Your task to perform on an android device: Open Wikipedia Image 0: 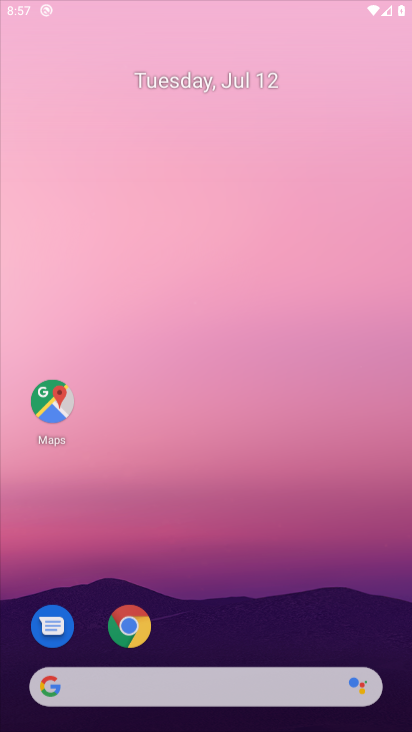
Step 0: press home button
Your task to perform on an android device: Open Wikipedia Image 1: 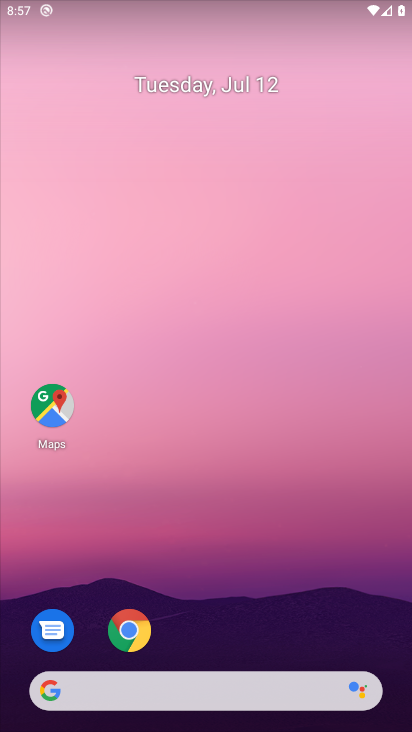
Step 1: drag from (226, 649) to (117, 116)
Your task to perform on an android device: Open Wikipedia Image 2: 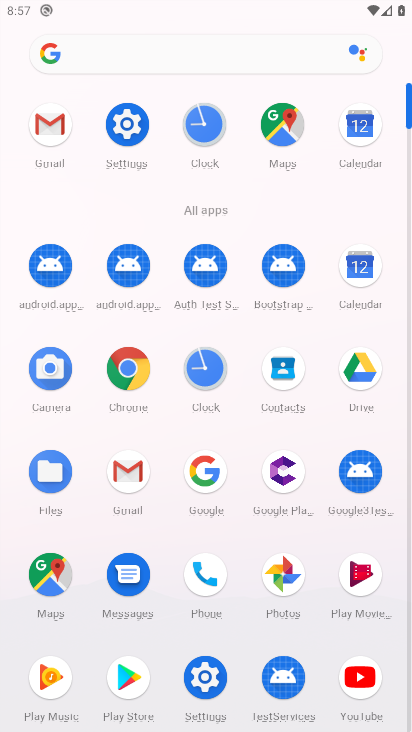
Step 2: click (199, 473)
Your task to perform on an android device: Open Wikipedia Image 3: 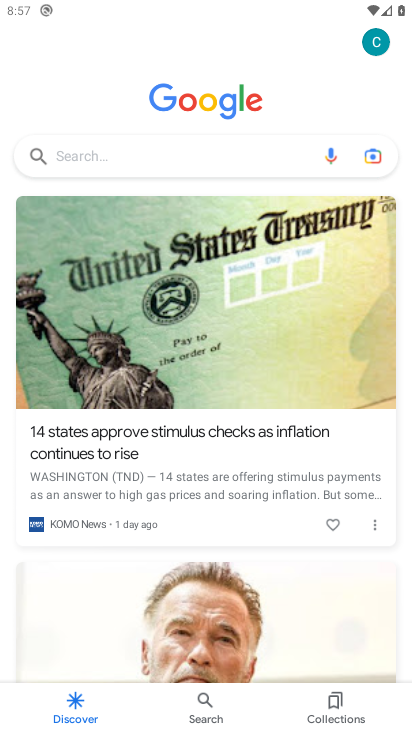
Step 3: click (136, 156)
Your task to perform on an android device: Open Wikipedia Image 4: 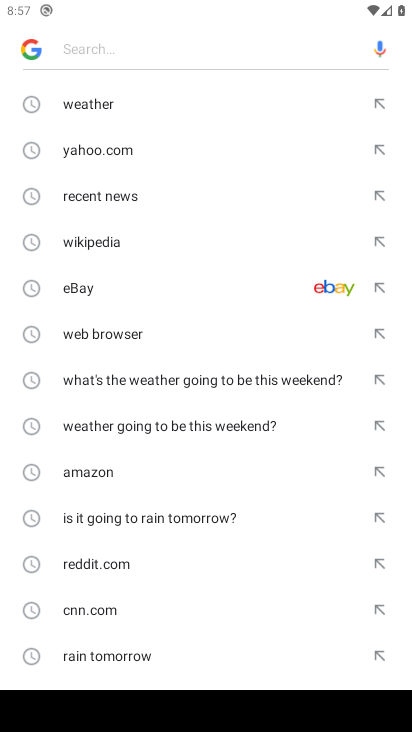
Step 4: click (86, 247)
Your task to perform on an android device: Open Wikipedia Image 5: 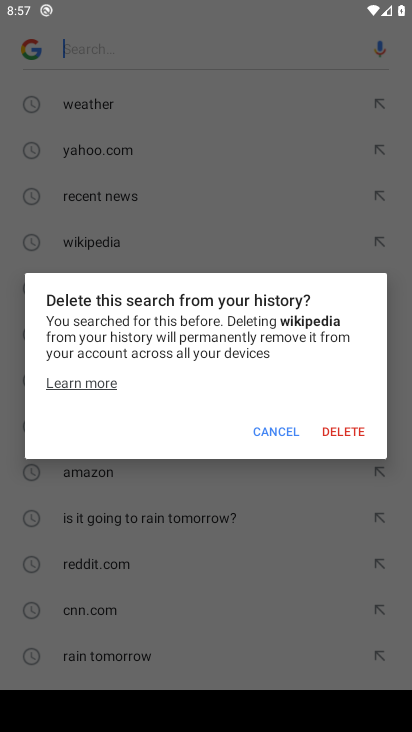
Step 5: click (212, 206)
Your task to perform on an android device: Open Wikipedia Image 6: 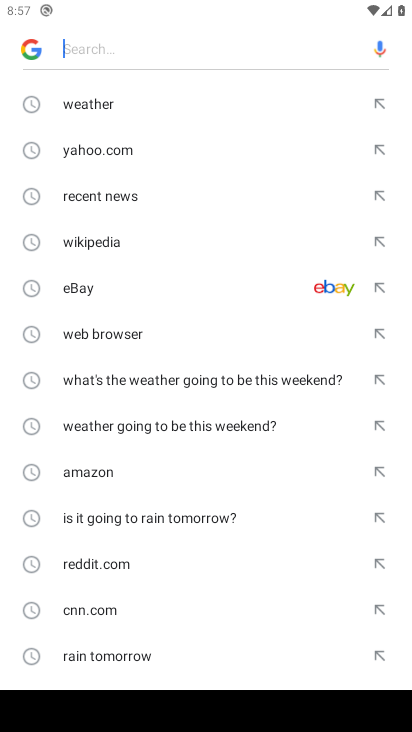
Step 6: click (79, 243)
Your task to perform on an android device: Open Wikipedia Image 7: 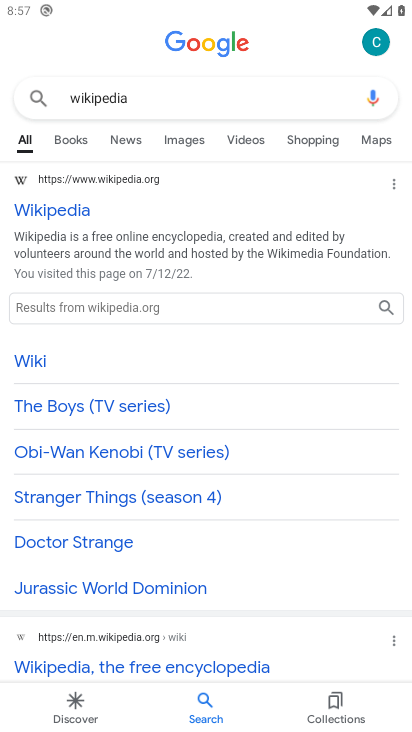
Step 7: click (52, 207)
Your task to perform on an android device: Open Wikipedia Image 8: 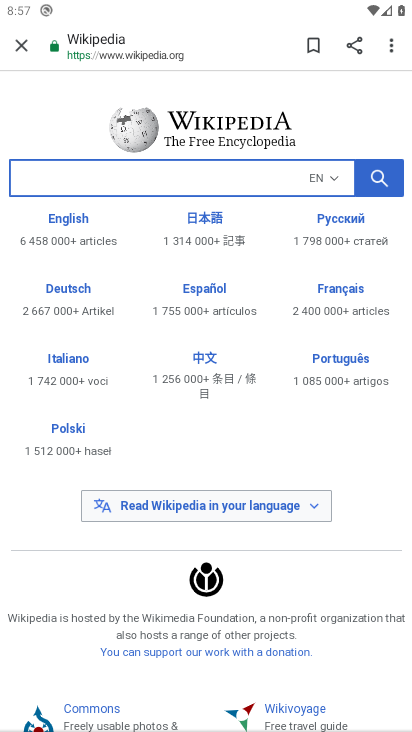
Step 8: task complete